Your task to perform on an android device: Show me popular games on the Play Store Image 0: 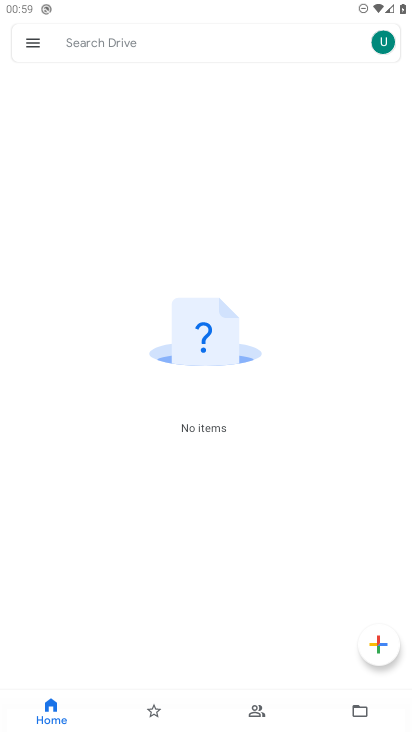
Step 0: press home button
Your task to perform on an android device: Show me popular games on the Play Store Image 1: 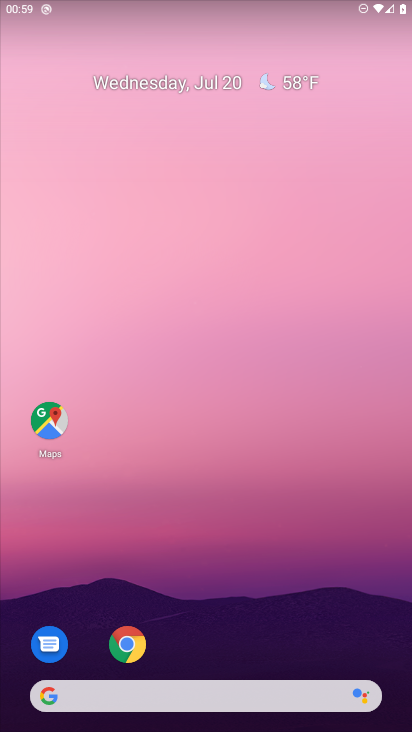
Step 1: drag from (69, 543) to (396, 1)
Your task to perform on an android device: Show me popular games on the Play Store Image 2: 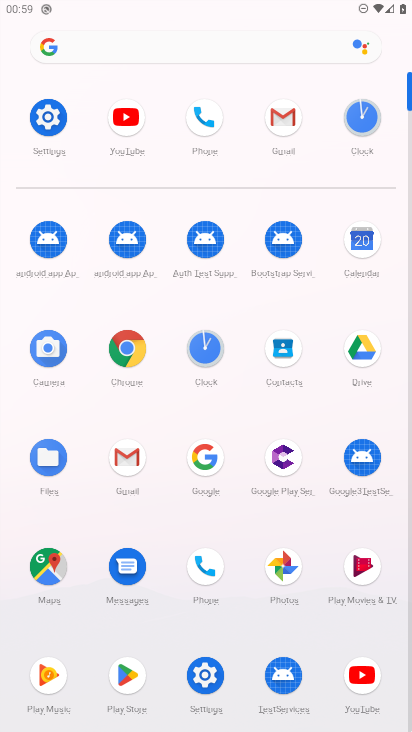
Step 2: click (108, 681)
Your task to perform on an android device: Show me popular games on the Play Store Image 3: 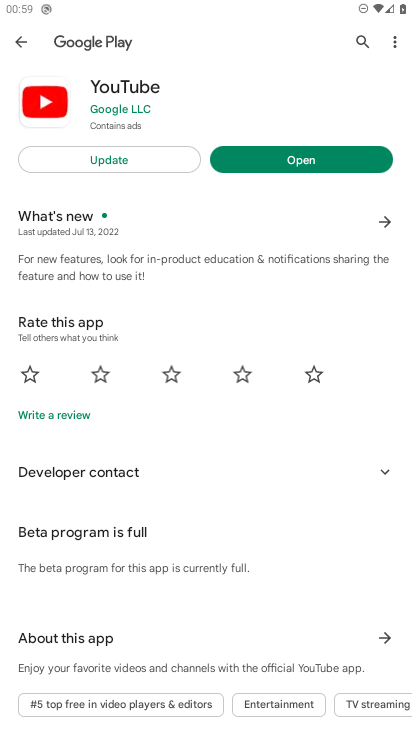
Step 3: click (14, 44)
Your task to perform on an android device: Show me popular games on the Play Store Image 4: 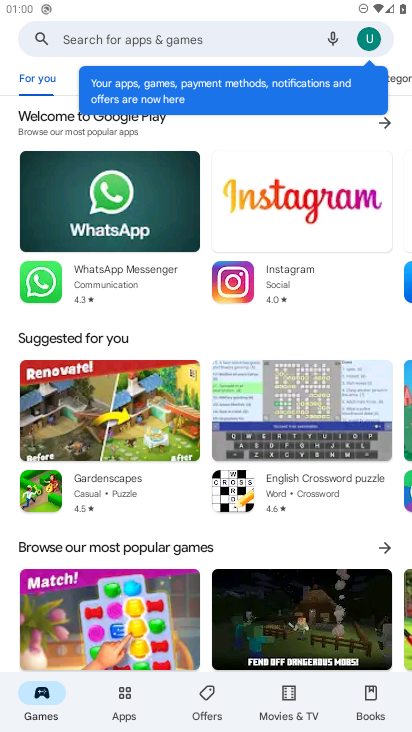
Step 4: click (100, 31)
Your task to perform on an android device: Show me popular games on the Play Store Image 5: 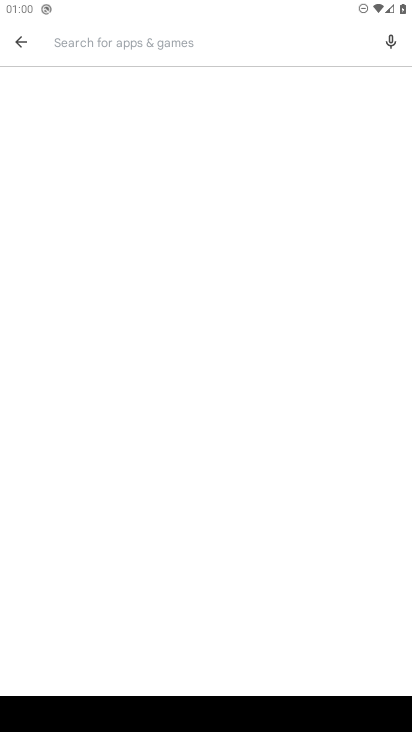
Step 5: type "popular games"
Your task to perform on an android device: Show me popular games on the Play Store Image 6: 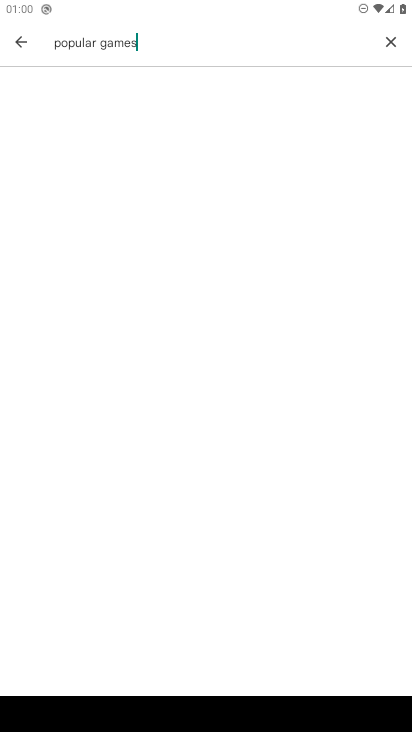
Step 6: type ""
Your task to perform on an android device: Show me popular games on the Play Store Image 7: 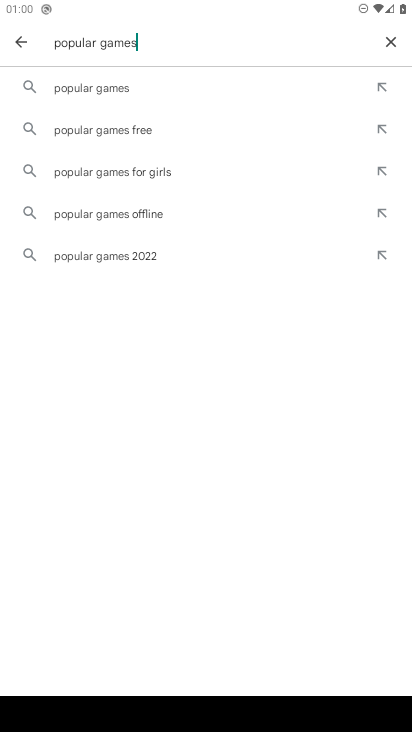
Step 7: click (110, 86)
Your task to perform on an android device: Show me popular games on the Play Store Image 8: 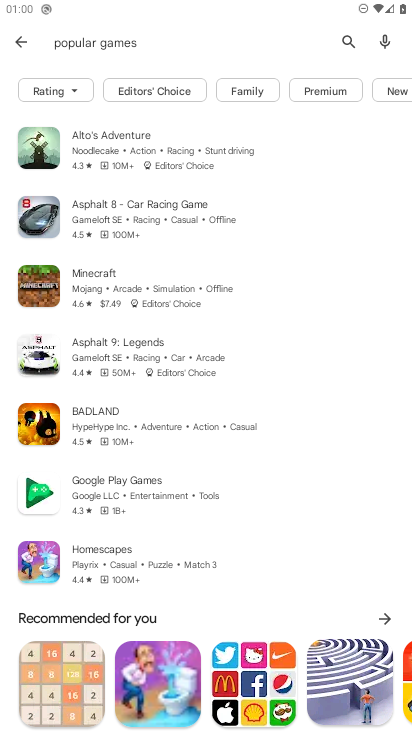
Step 8: task complete